Your task to perform on an android device: turn on javascript in the chrome app Image 0: 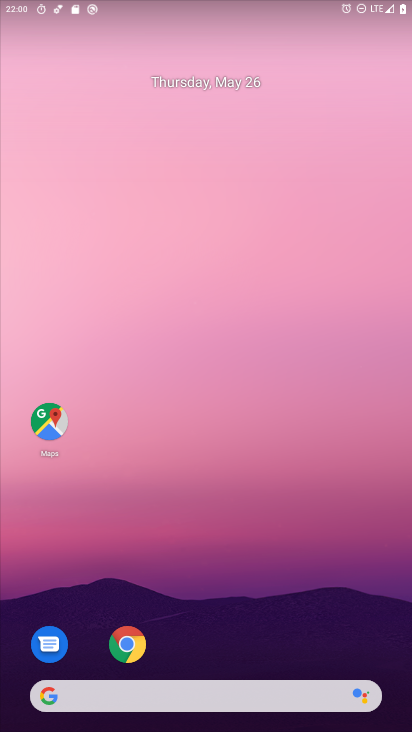
Step 0: drag from (209, 660) to (209, 40)
Your task to perform on an android device: turn on javascript in the chrome app Image 1: 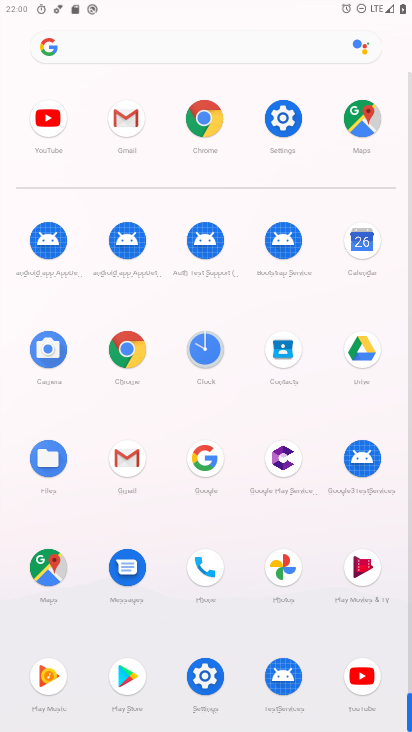
Step 1: click (136, 349)
Your task to perform on an android device: turn on javascript in the chrome app Image 2: 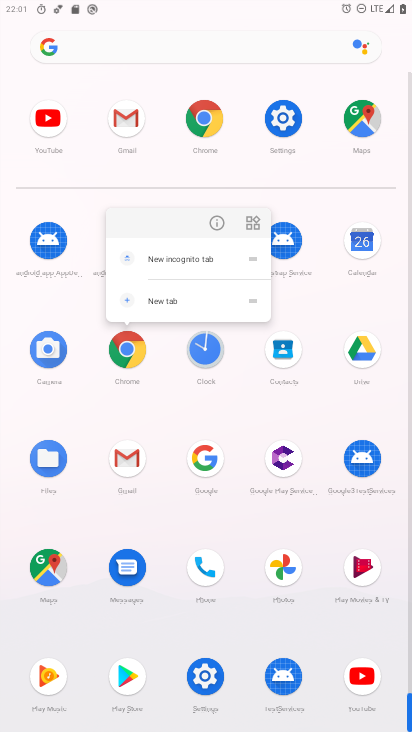
Step 2: click (223, 221)
Your task to perform on an android device: turn on javascript in the chrome app Image 3: 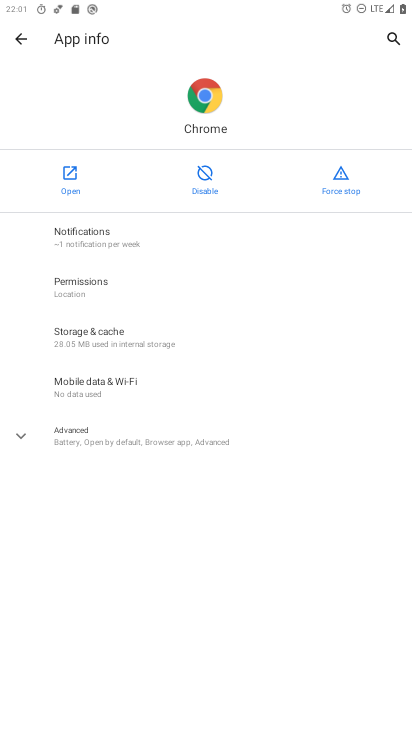
Step 3: click (75, 188)
Your task to perform on an android device: turn on javascript in the chrome app Image 4: 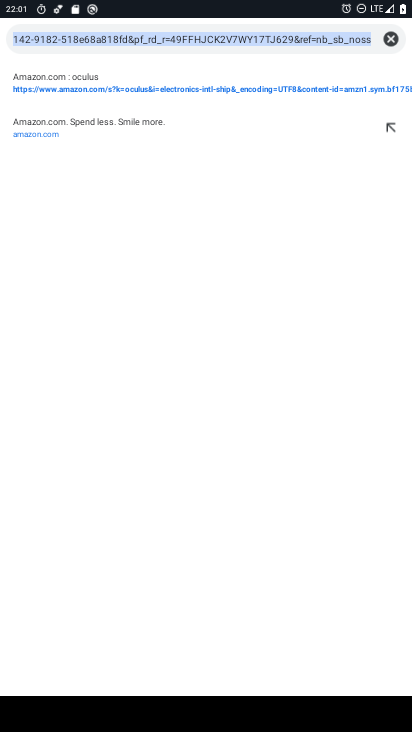
Step 4: click (323, 293)
Your task to perform on an android device: turn on javascript in the chrome app Image 5: 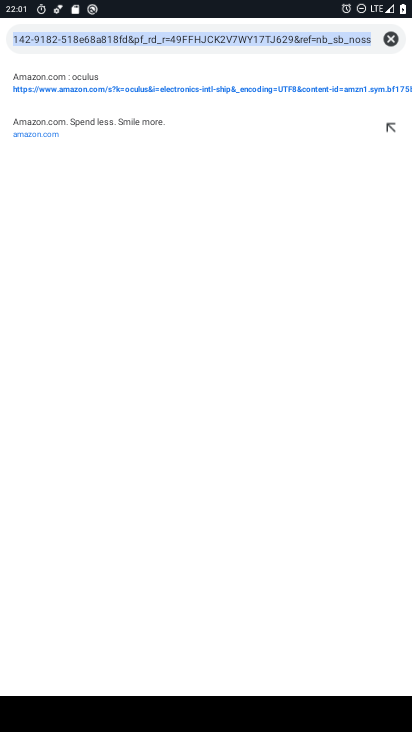
Step 5: press back button
Your task to perform on an android device: turn on javascript in the chrome app Image 6: 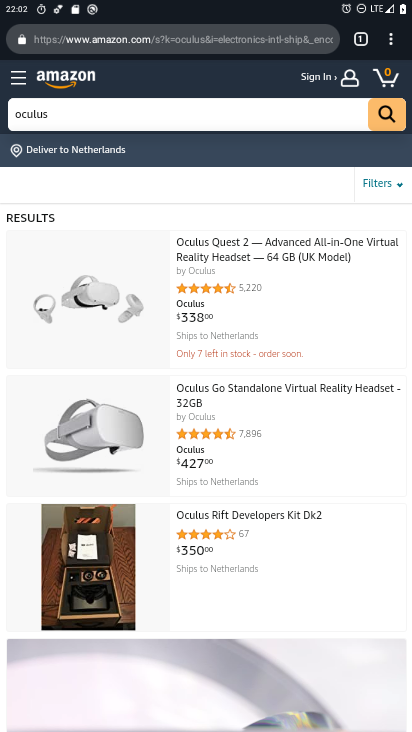
Step 6: drag from (390, 36) to (282, 430)
Your task to perform on an android device: turn on javascript in the chrome app Image 7: 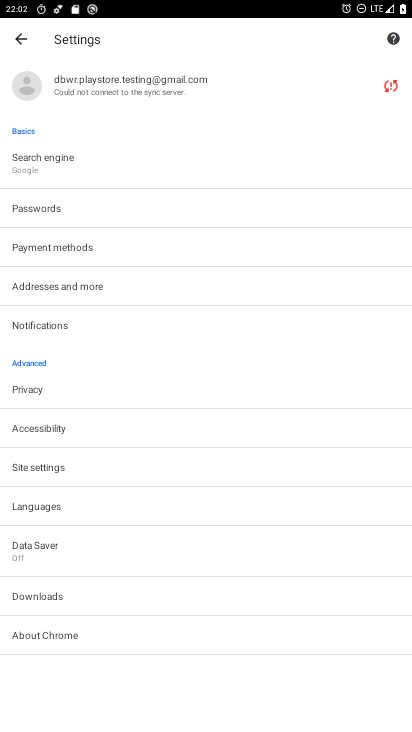
Step 7: click (79, 461)
Your task to perform on an android device: turn on javascript in the chrome app Image 8: 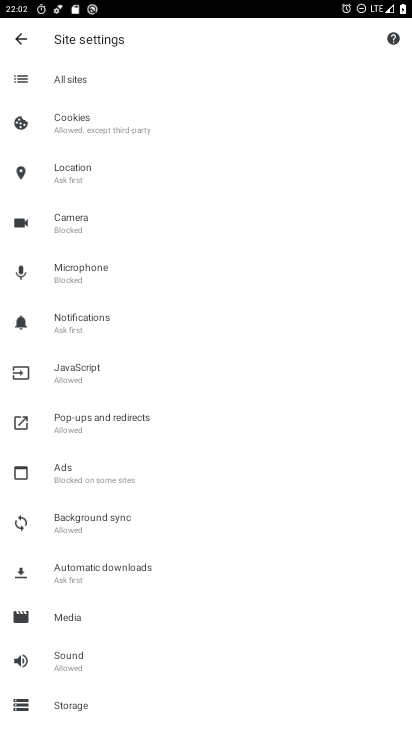
Step 8: click (138, 375)
Your task to perform on an android device: turn on javascript in the chrome app Image 9: 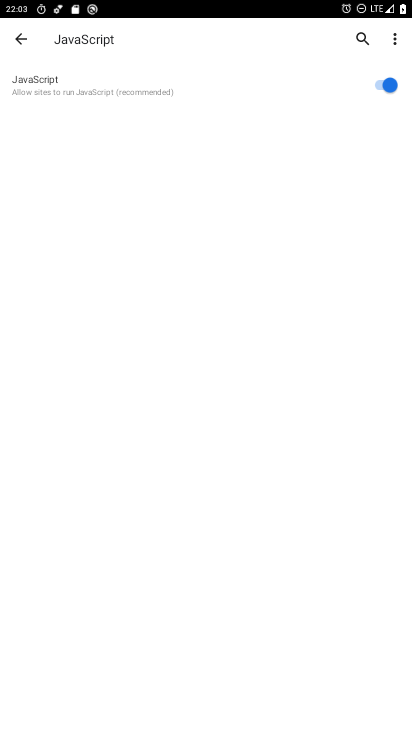
Step 9: task complete